Your task to perform on an android device: Open display settings Image 0: 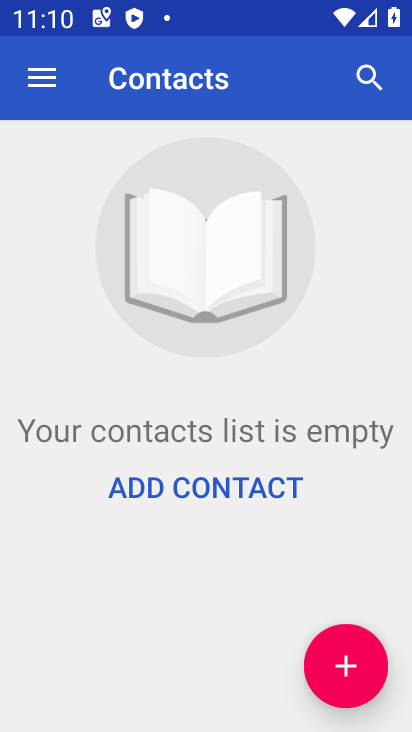
Step 0: press home button
Your task to perform on an android device: Open display settings Image 1: 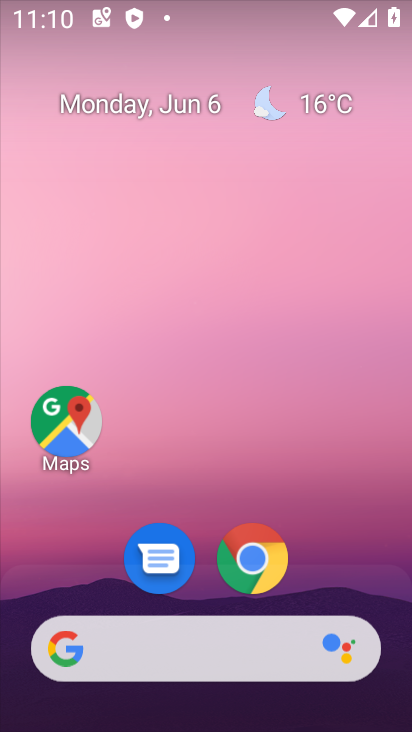
Step 1: drag from (356, 545) to (357, 5)
Your task to perform on an android device: Open display settings Image 2: 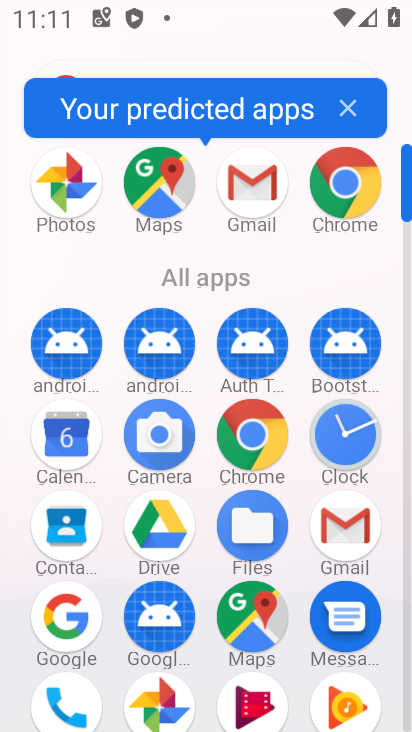
Step 2: drag from (206, 543) to (178, 154)
Your task to perform on an android device: Open display settings Image 3: 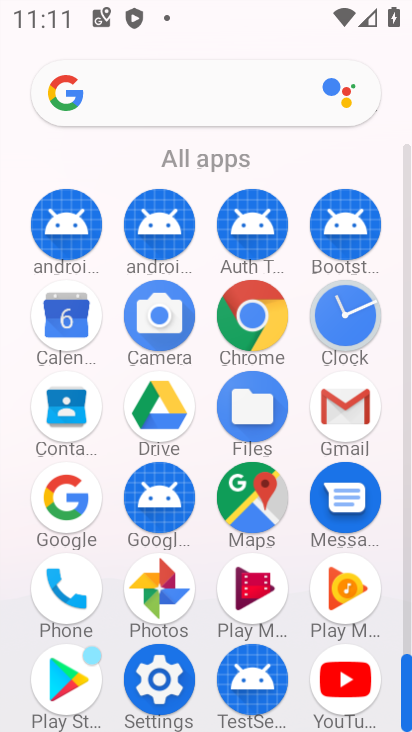
Step 3: click (156, 681)
Your task to perform on an android device: Open display settings Image 4: 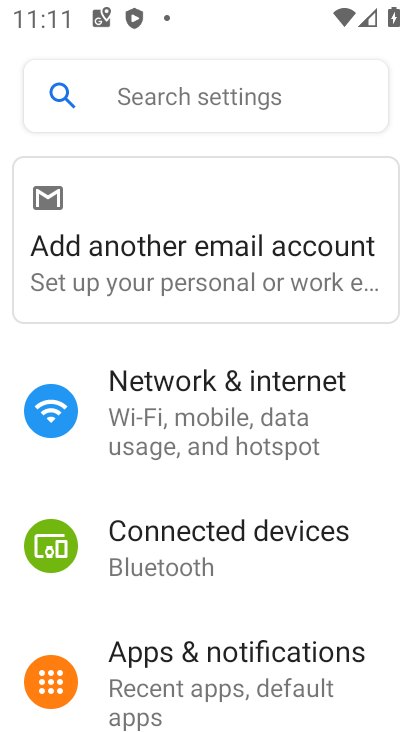
Step 4: drag from (205, 621) to (212, 123)
Your task to perform on an android device: Open display settings Image 5: 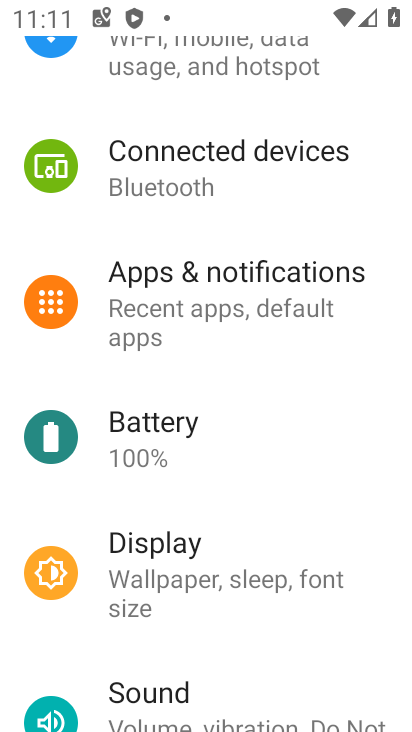
Step 5: click (212, 577)
Your task to perform on an android device: Open display settings Image 6: 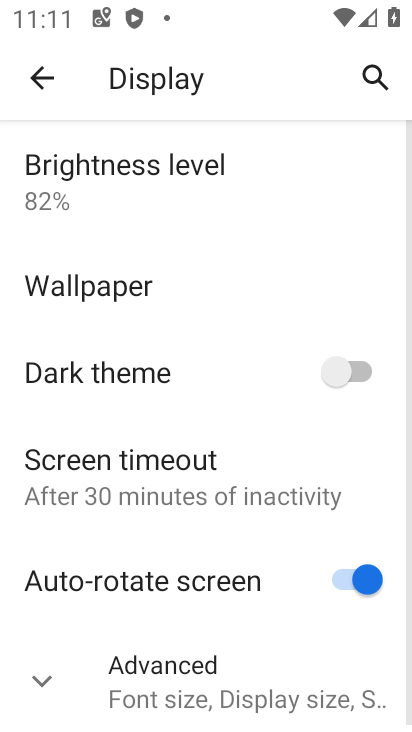
Step 6: task complete